Your task to perform on an android device: find which apps use the phone's location Image 0: 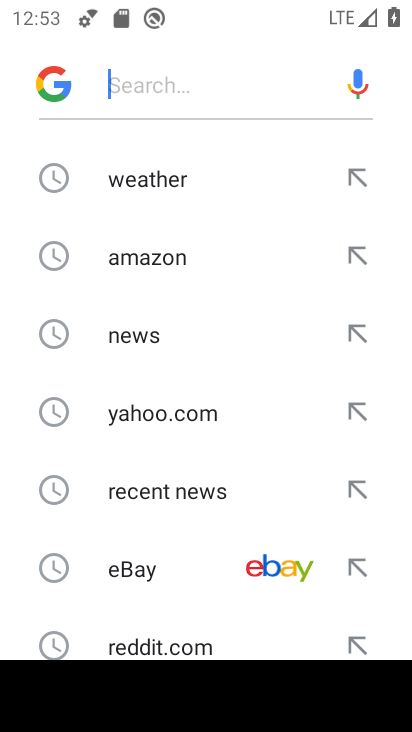
Step 0: press home button
Your task to perform on an android device: find which apps use the phone's location Image 1: 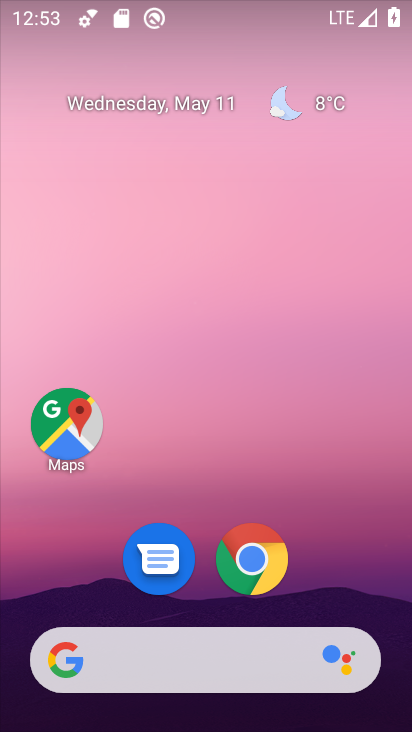
Step 1: drag from (209, 721) to (218, 140)
Your task to perform on an android device: find which apps use the phone's location Image 2: 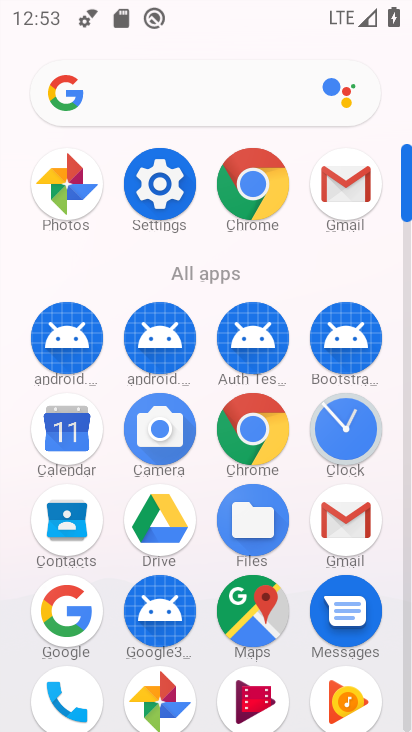
Step 2: click (158, 185)
Your task to perform on an android device: find which apps use the phone's location Image 3: 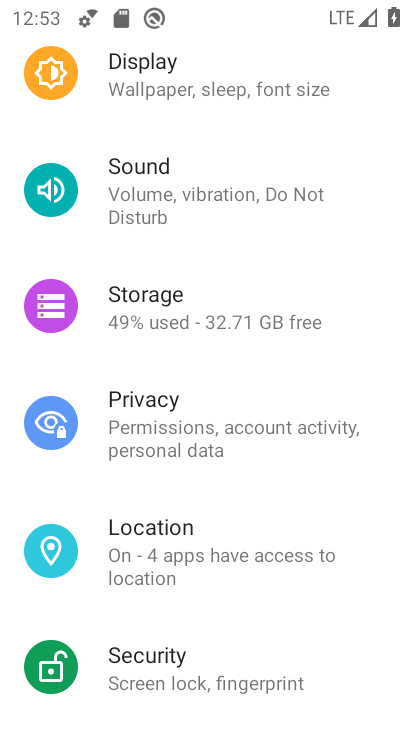
Step 3: click (138, 548)
Your task to perform on an android device: find which apps use the phone's location Image 4: 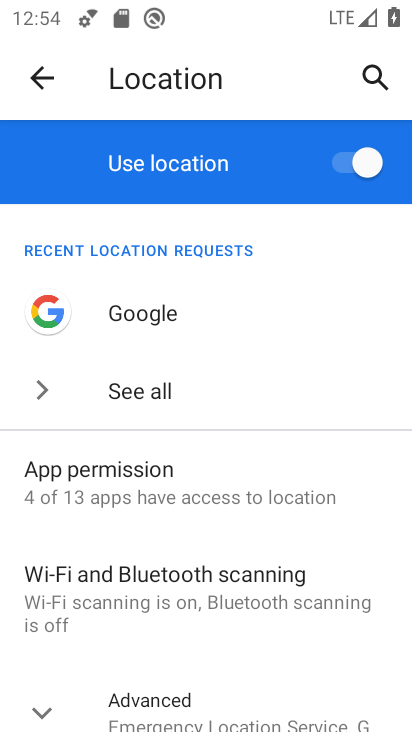
Step 4: click (96, 488)
Your task to perform on an android device: find which apps use the phone's location Image 5: 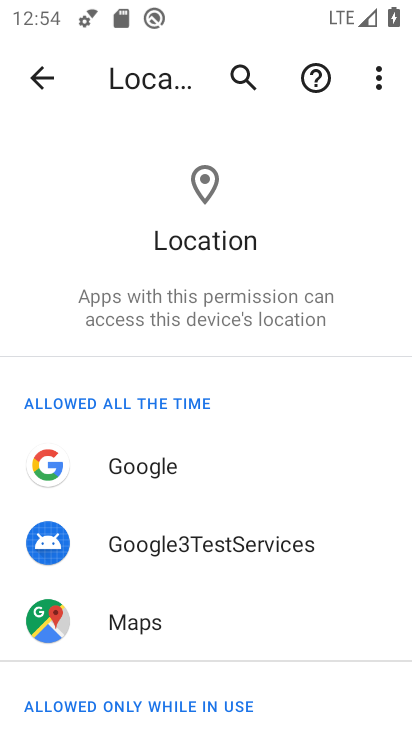
Step 5: task complete